Your task to perform on an android device: open app "LinkedIn" (install if not already installed) Image 0: 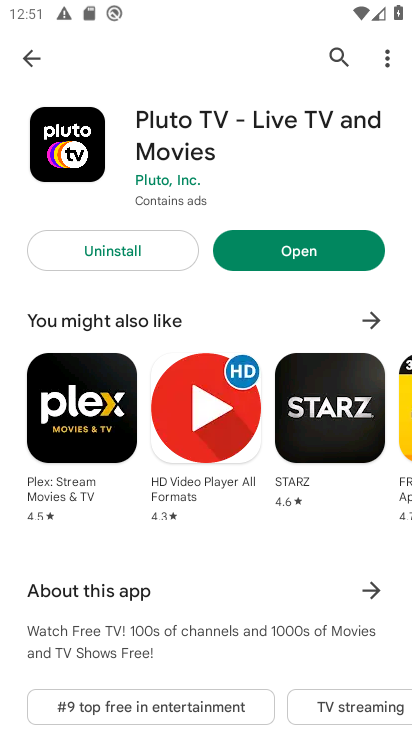
Step 0: click (334, 59)
Your task to perform on an android device: open app "LinkedIn" (install if not already installed) Image 1: 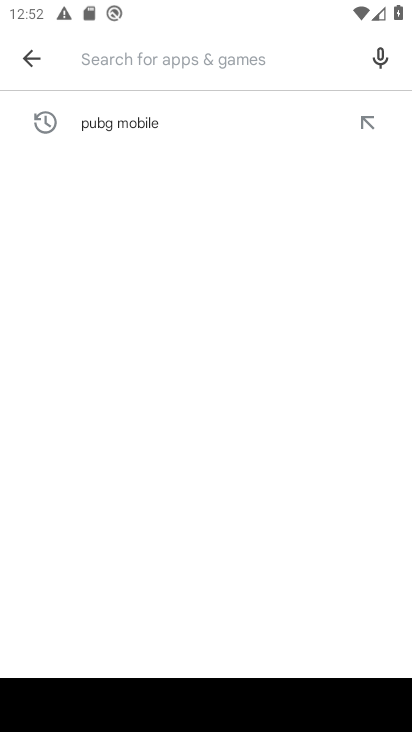
Step 1: type "LinkedIn"
Your task to perform on an android device: open app "LinkedIn" (install if not already installed) Image 2: 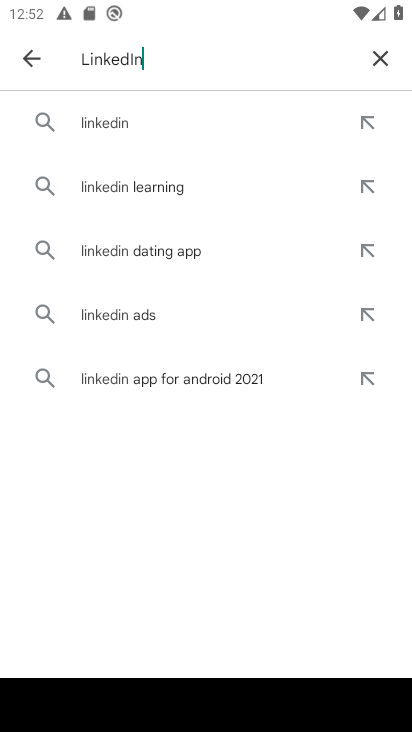
Step 2: click (130, 118)
Your task to perform on an android device: open app "LinkedIn" (install if not already installed) Image 3: 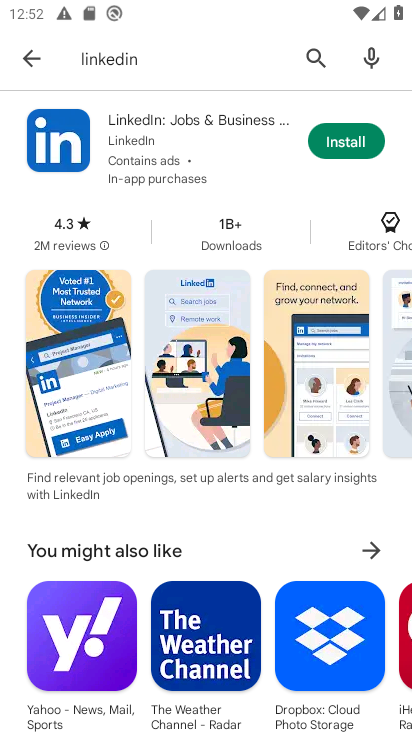
Step 3: click (338, 143)
Your task to perform on an android device: open app "LinkedIn" (install if not already installed) Image 4: 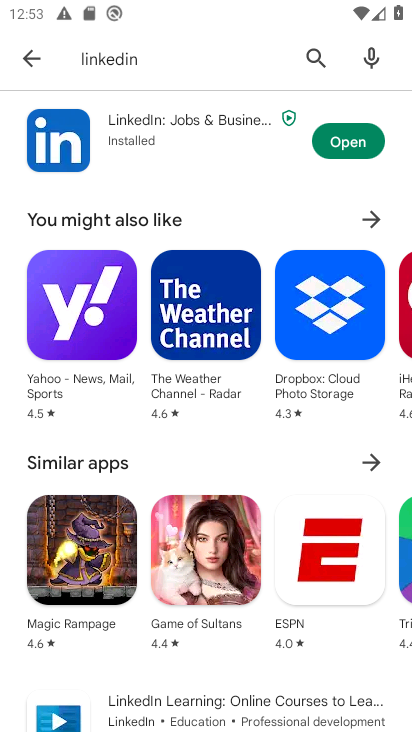
Step 4: click (340, 134)
Your task to perform on an android device: open app "LinkedIn" (install if not already installed) Image 5: 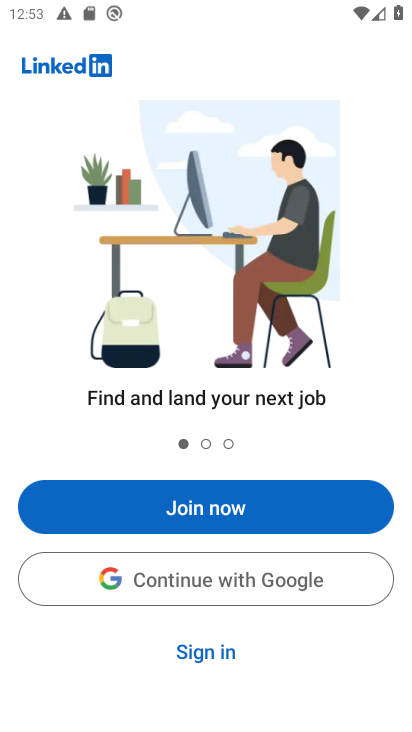
Step 5: click (227, 579)
Your task to perform on an android device: open app "LinkedIn" (install if not already installed) Image 6: 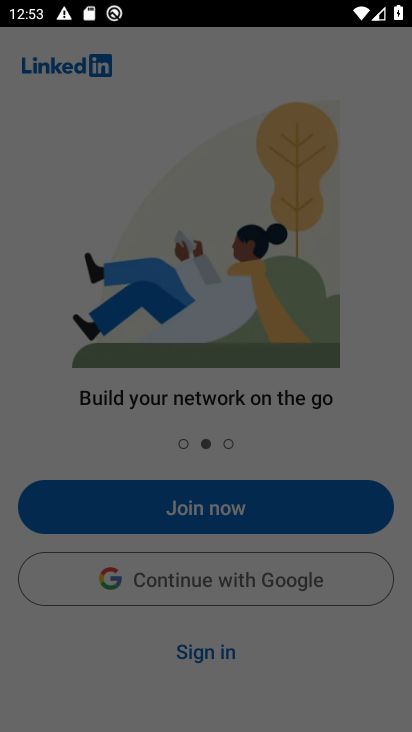
Step 6: click (225, 578)
Your task to perform on an android device: open app "LinkedIn" (install if not already installed) Image 7: 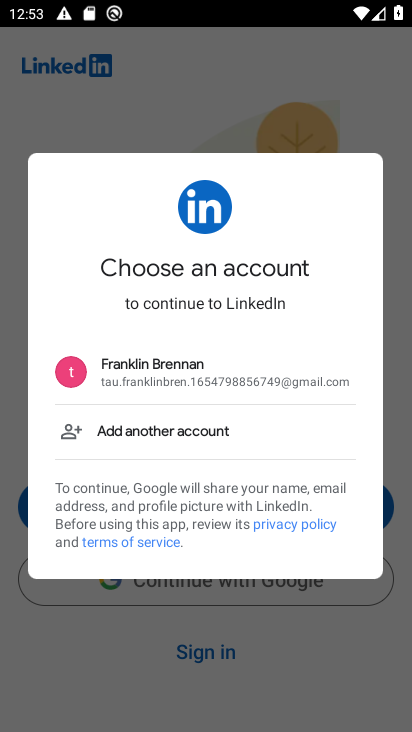
Step 7: click (165, 368)
Your task to perform on an android device: open app "LinkedIn" (install if not already installed) Image 8: 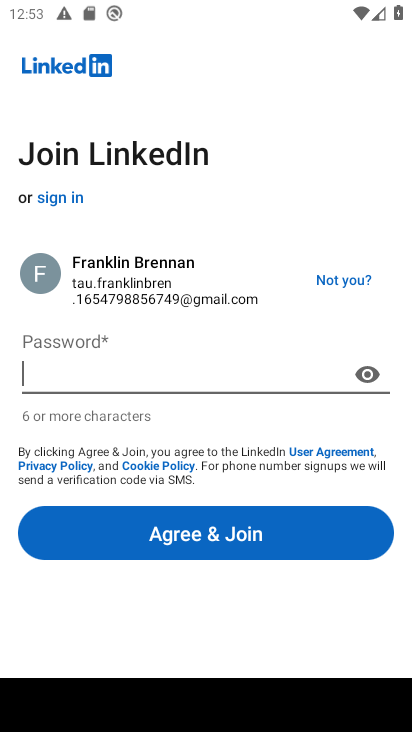
Step 8: task complete